Your task to perform on an android device: star an email in the gmail app Image 0: 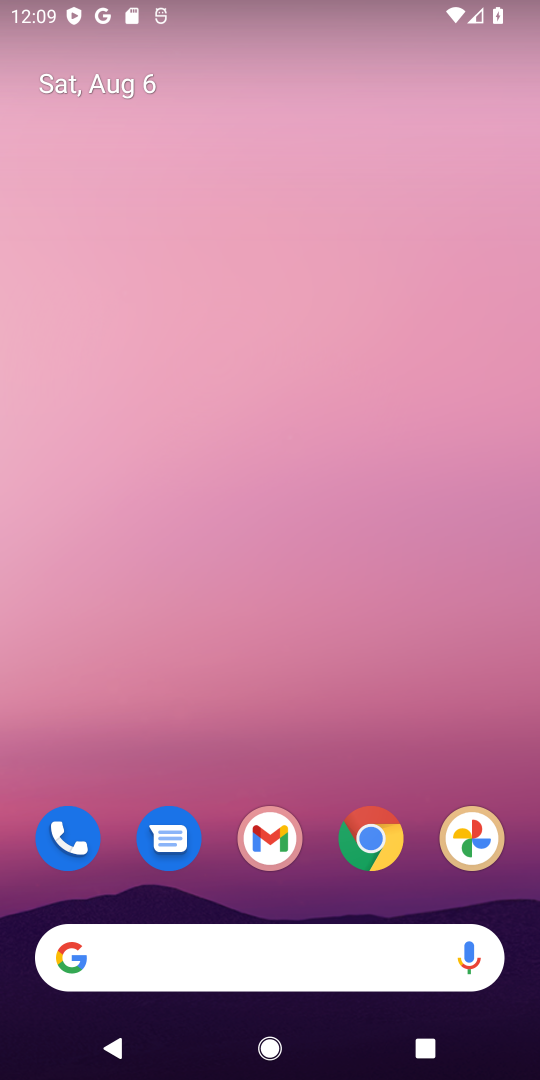
Step 0: click (267, 830)
Your task to perform on an android device: star an email in the gmail app Image 1: 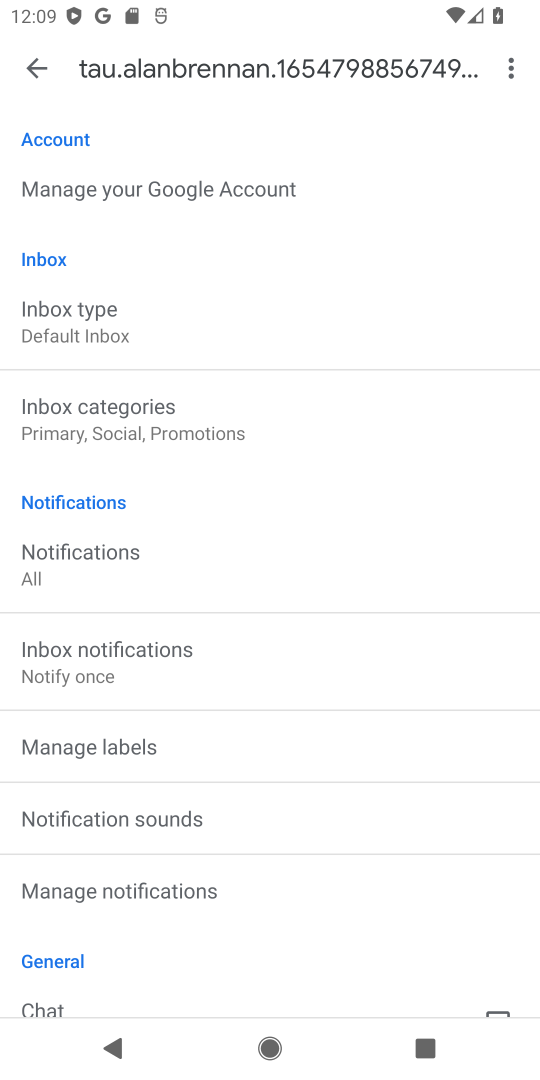
Step 1: click (25, 64)
Your task to perform on an android device: star an email in the gmail app Image 2: 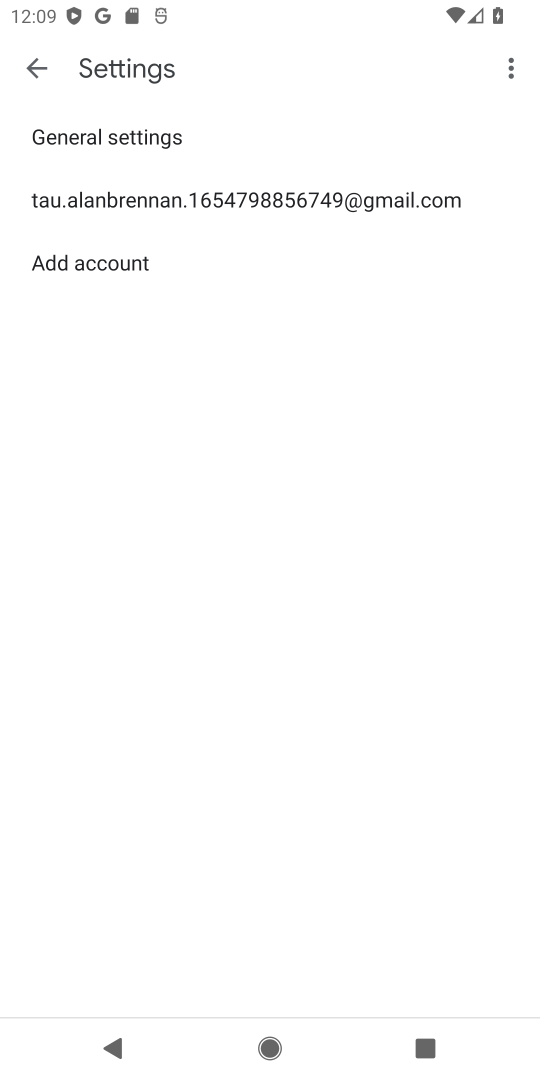
Step 2: click (27, 60)
Your task to perform on an android device: star an email in the gmail app Image 3: 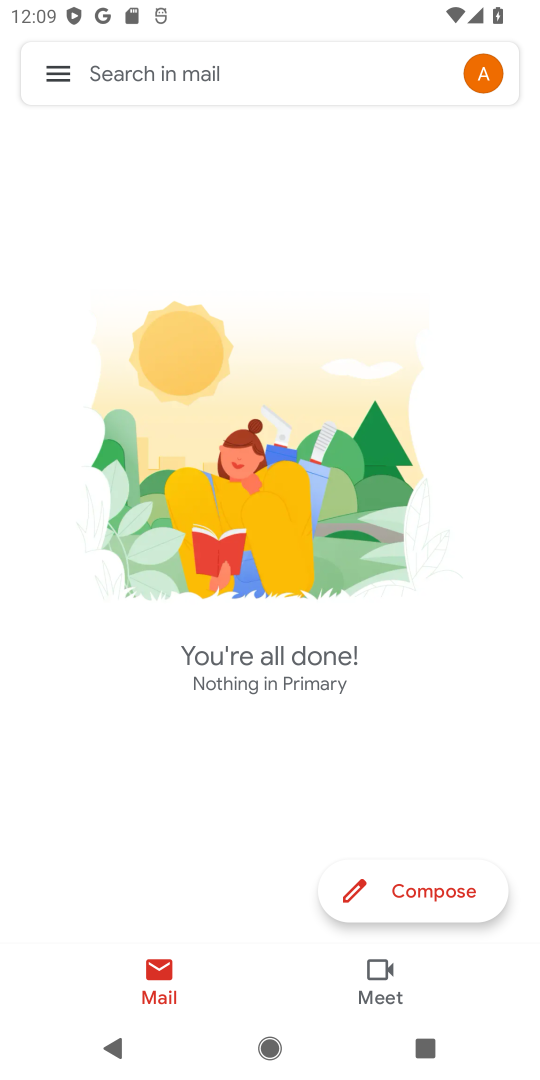
Step 3: click (57, 63)
Your task to perform on an android device: star an email in the gmail app Image 4: 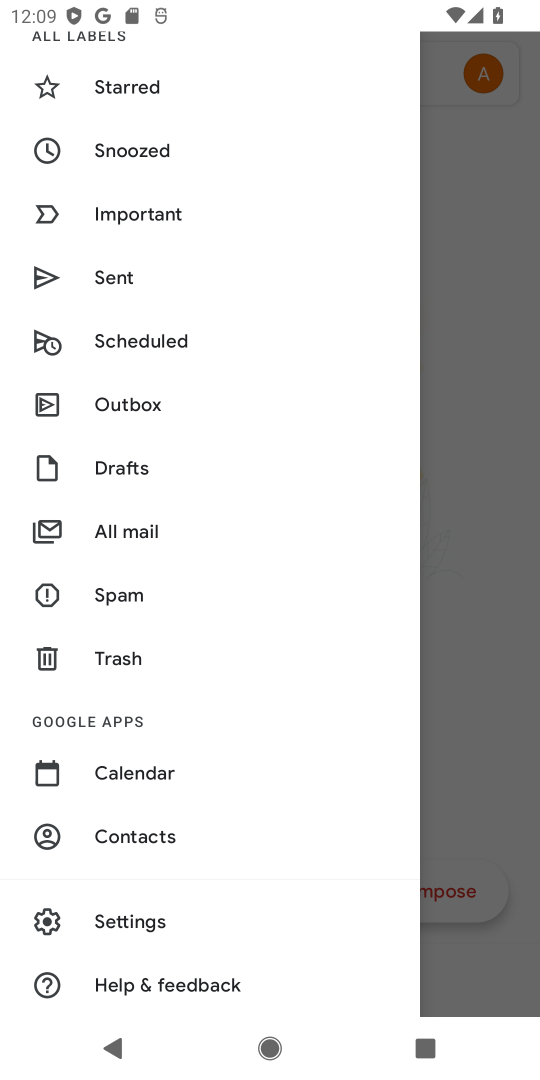
Step 4: click (165, 536)
Your task to perform on an android device: star an email in the gmail app Image 5: 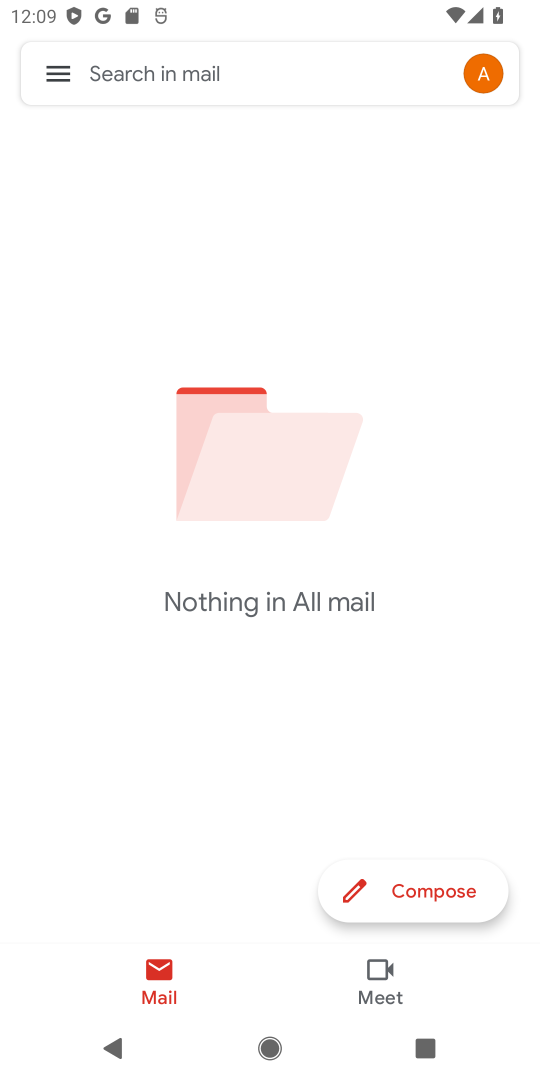
Step 5: task complete